Your task to perform on an android device: Go to display settings Image 0: 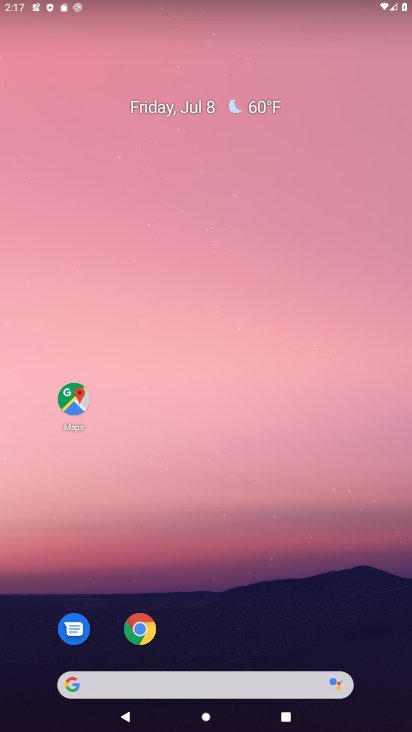
Step 0: drag from (205, 637) to (202, 272)
Your task to perform on an android device: Go to display settings Image 1: 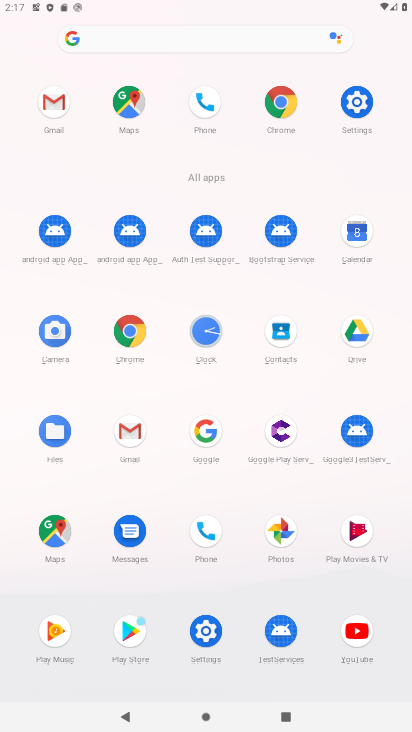
Step 1: click (346, 115)
Your task to perform on an android device: Go to display settings Image 2: 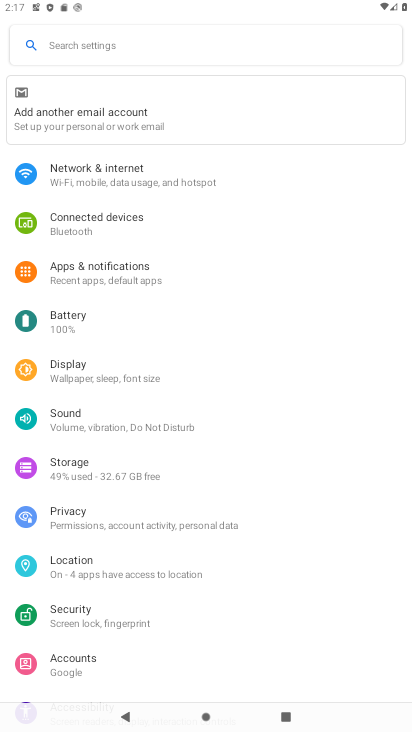
Step 2: click (160, 372)
Your task to perform on an android device: Go to display settings Image 3: 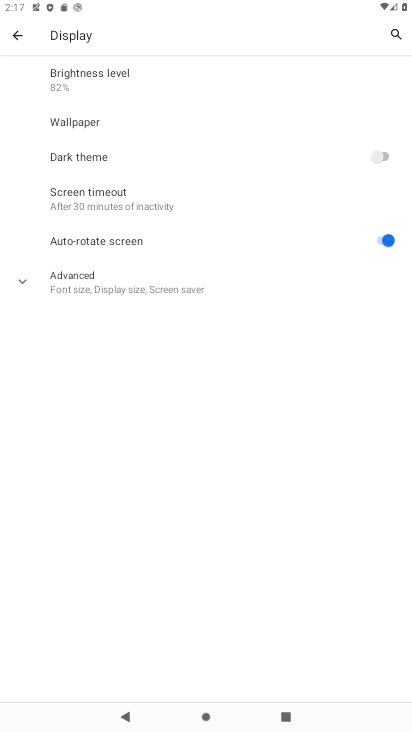
Step 3: task complete